Your task to perform on an android device: delete browsing data in the chrome app Image 0: 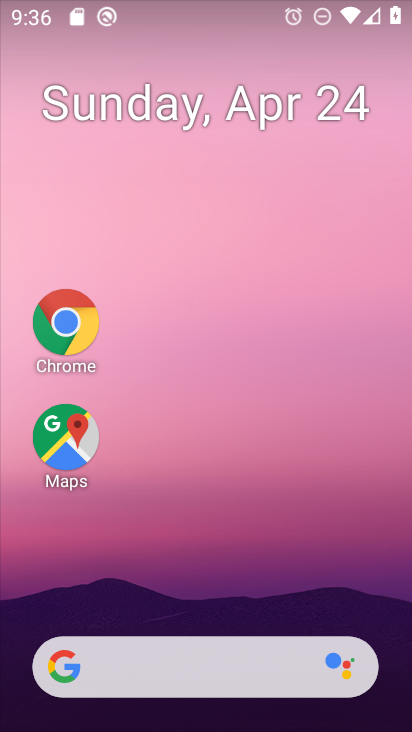
Step 0: click (70, 318)
Your task to perform on an android device: delete browsing data in the chrome app Image 1: 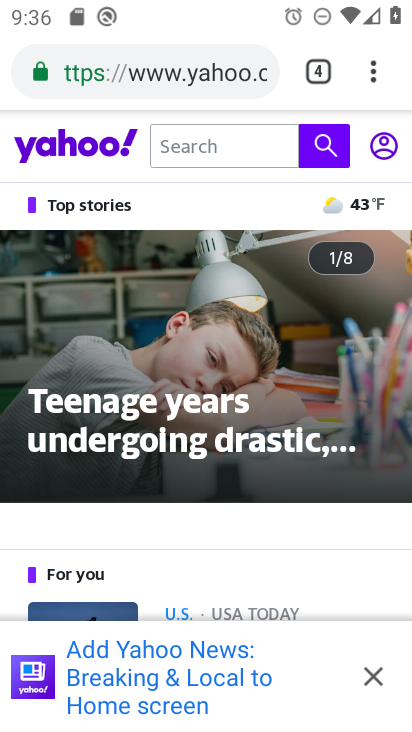
Step 1: click (369, 71)
Your task to perform on an android device: delete browsing data in the chrome app Image 2: 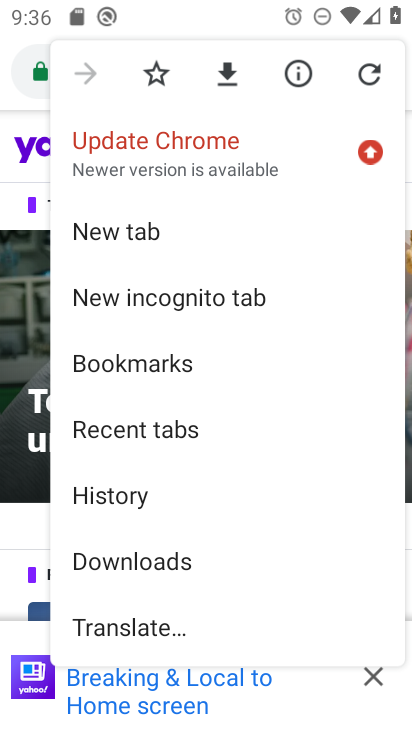
Step 2: click (122, 495)
Your task to perform on an android device: delete browsing data in the chrome app Image 3: 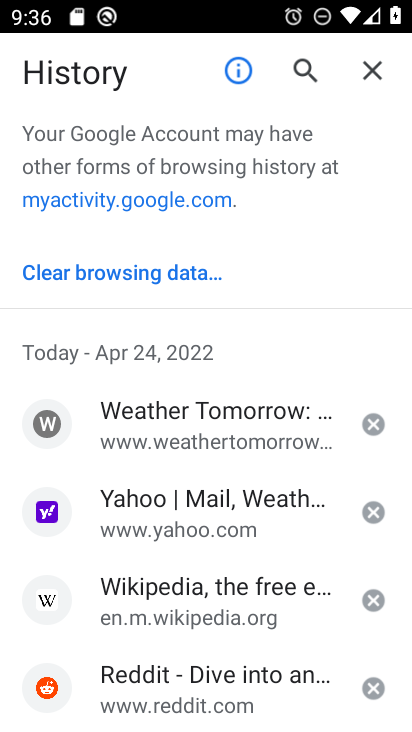
Step 3: click (97, 261)
Your task to perform on an android device: delete browsing data in the chrome app Image 4: 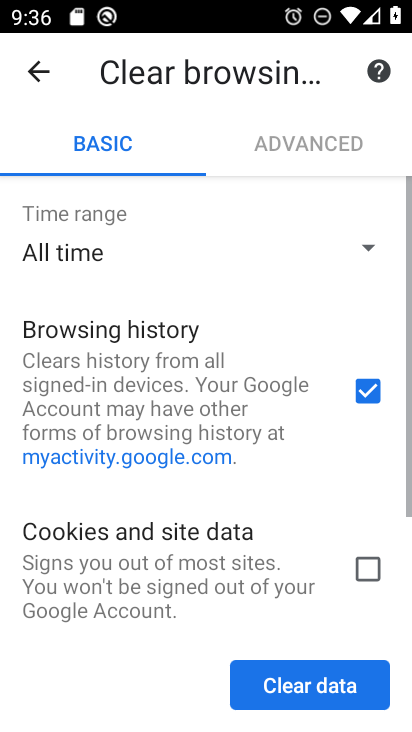
Step 4: click (112, 273)
Your task to perform on an android device: delete browsing data in the chrome app Image 5: 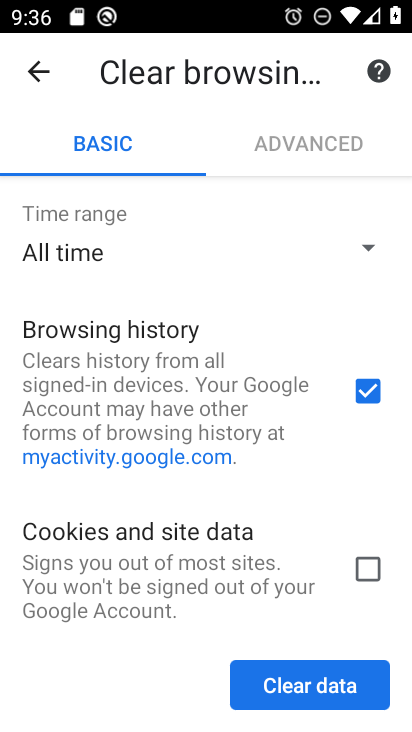
Step 5: click (317, 696)
Your task to perform on an android device: delete browsing data in the chrome app Image 6: 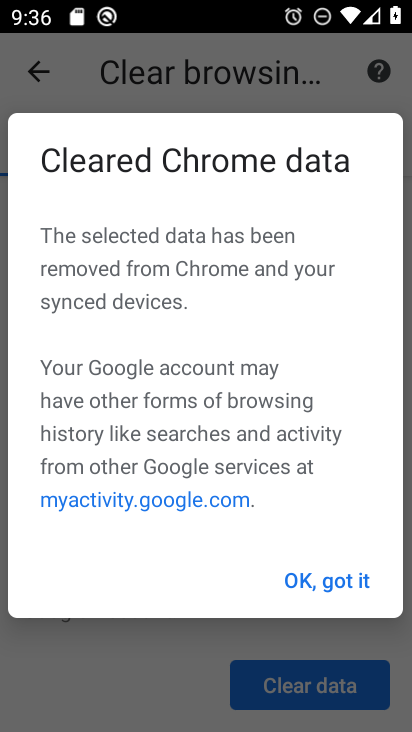
Step 6: click (338, 574)
Your task to perform on an android device: delete browsing data in the chrome app Image 7: 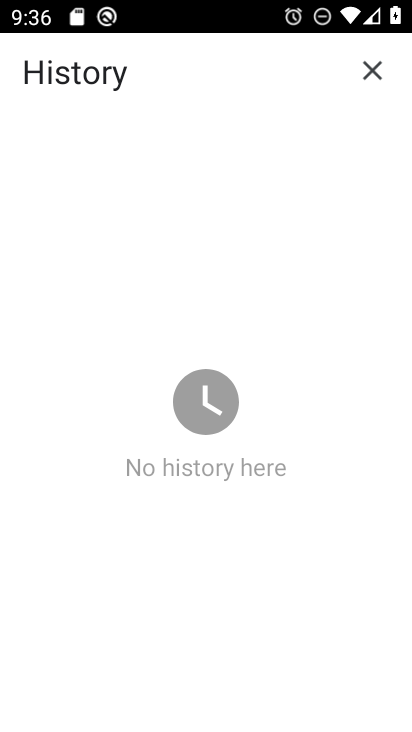
Step 7: task complete